Your task to perform on an android device: check battery use Image 0: 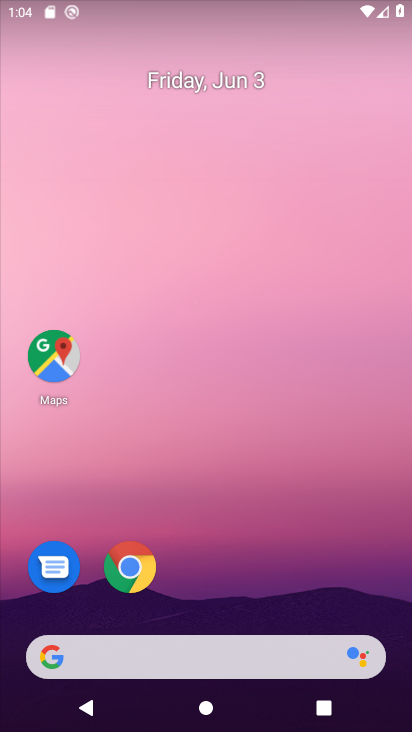
Step 0: drag from (266, 568) to (251, 207)
Your task to perform on an android device: check battery use Image 1: 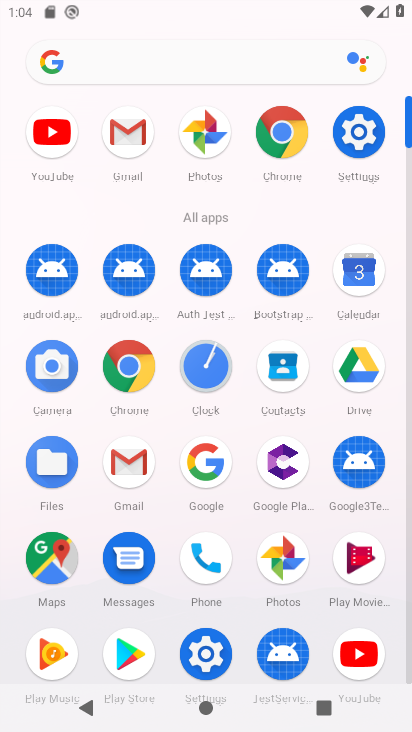
Step 1: click (365, 115)
Your task to perform on an android device: check battery use Image 2: 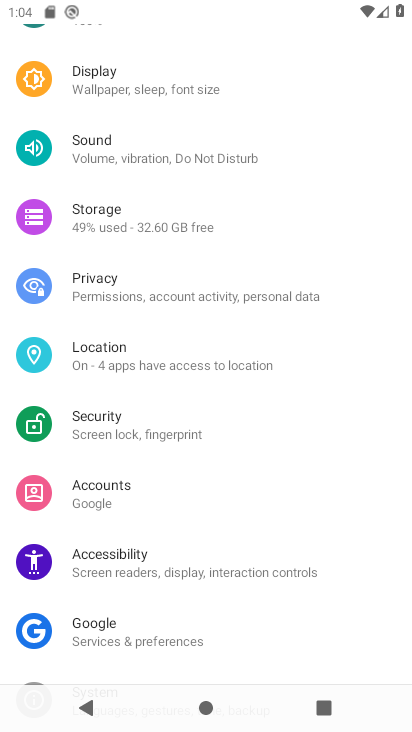
Step 2: drag from (127, 93) to (180, 466)
Your task to perform on an android device: check battery use Image 3: 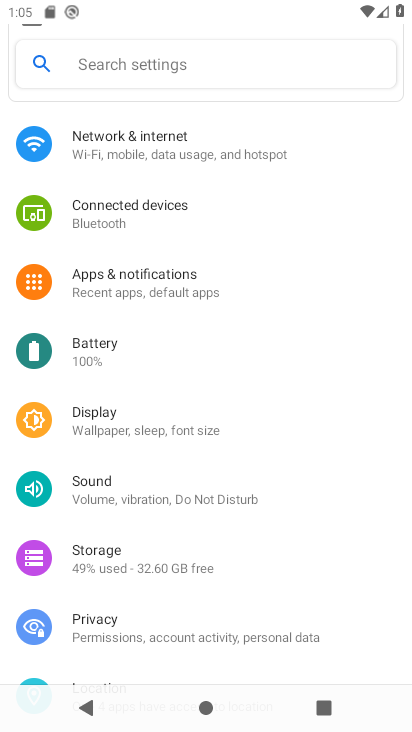
Step 3: click (120, 366)
Your task to perform on an android device: check battery use Image 4: 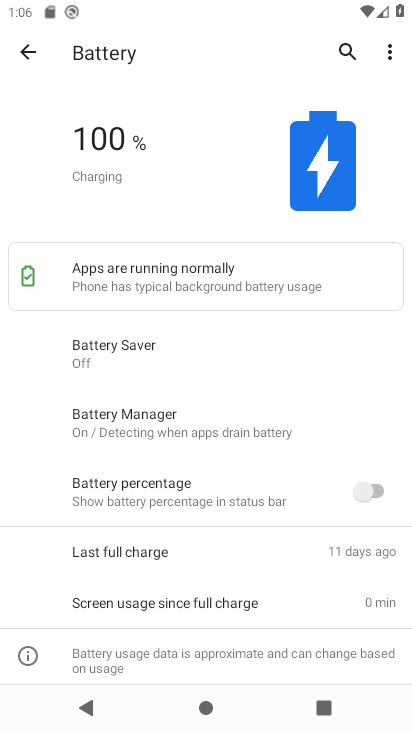
Step 4: task complete